Your task to perform on an android device: turn on bluetooth scan Image 0: 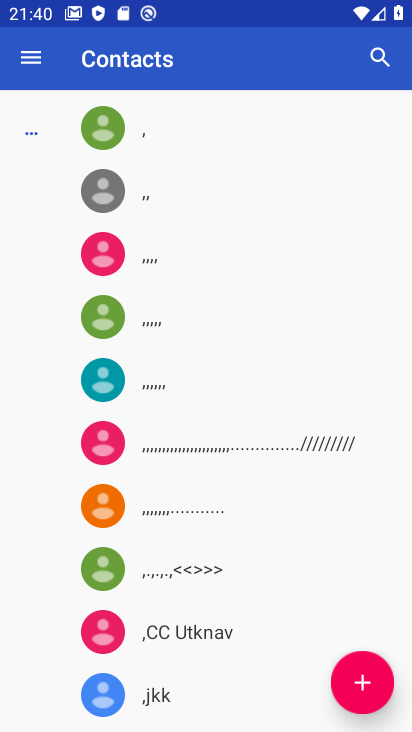
Step 0: press home button
Your task to perform on an android device: turn on bluetooth scan Image 1: 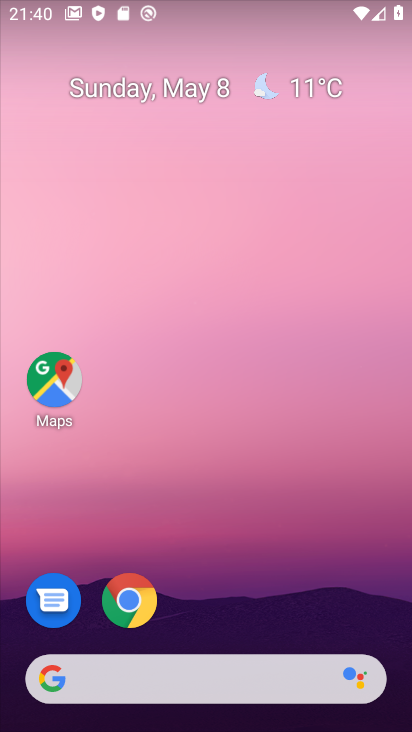
Step 1: drag from (208, 615) to (315, 44)
Your task to perform on an android device: turn on bluetooth scan Image 2: 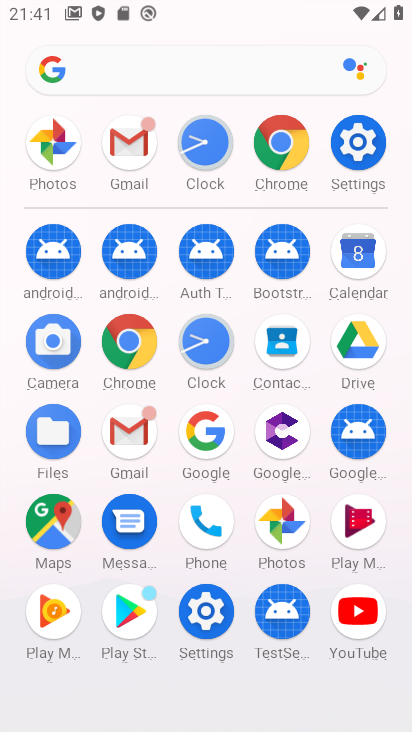
Step 2: click (359, 155)
Your task to perform on an android device: turn on bluetooth scan Image 3: 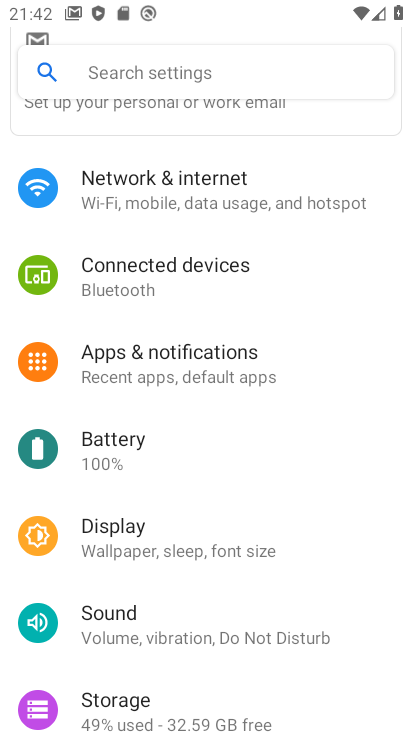
Step 3: drag from (103, 624) to (194, 128)
Your task to perform on an android device: turn on bluetooth scan Image 4: 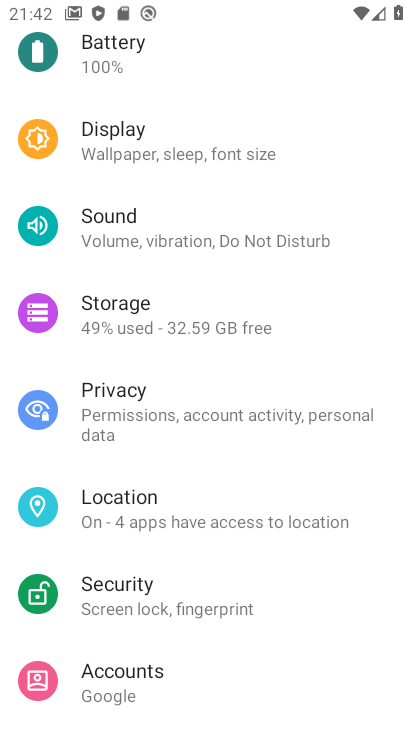
Step 4: click (122, 526)
Your task to perform on an android device: turn on bluetooth scan Image 5: 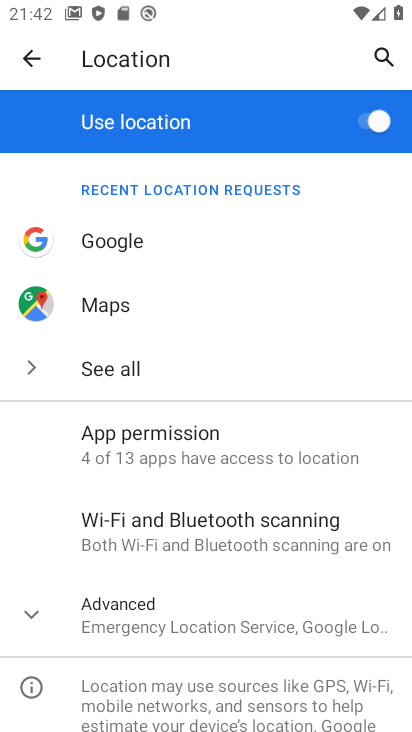
Step 5: click (108, 676)
Your task to perform on an android device: turn on bluetooth scan Image 6: 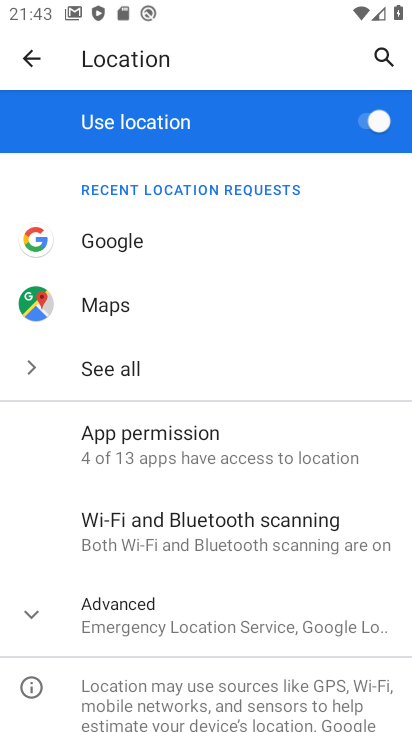
Step 6: click (126, 698)
Your task to perform on an android device: turn on bluetooth scan Image 7: 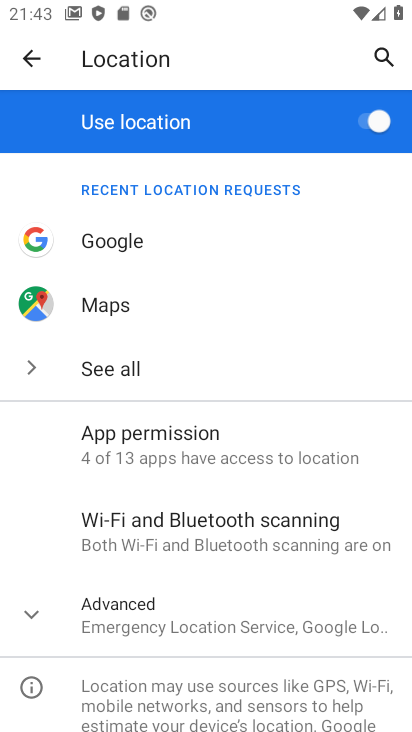
Step 7: click (170, 632)
Your task to perform on an android device: turn on bluetooth scan Image 8: 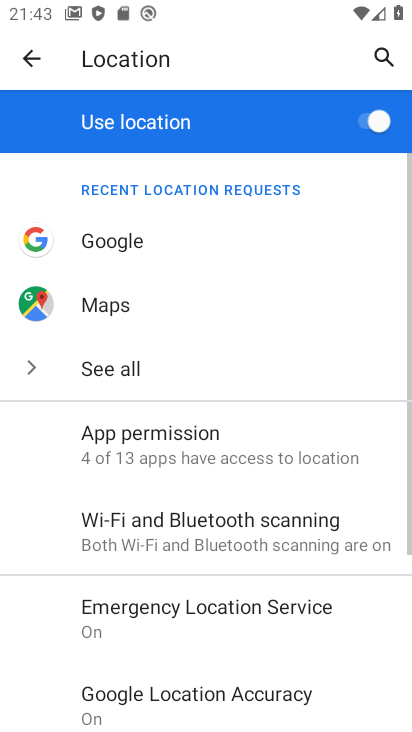
Step 8: click (181, 514)
Your task to perform on an android device: turn on bluetooth scan Image 9: 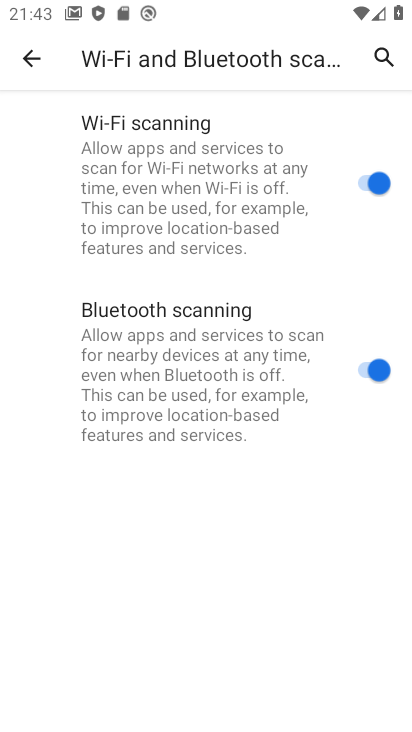
Step 9: task complete